Your task to perform on an android device: Go to privacy settings Image 0: 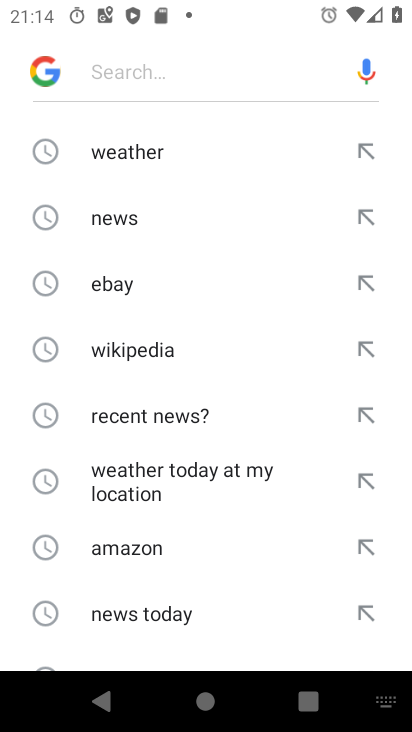
Step 0: press home button
Your task to perform on an android device: Go to privacy settings Image 1: 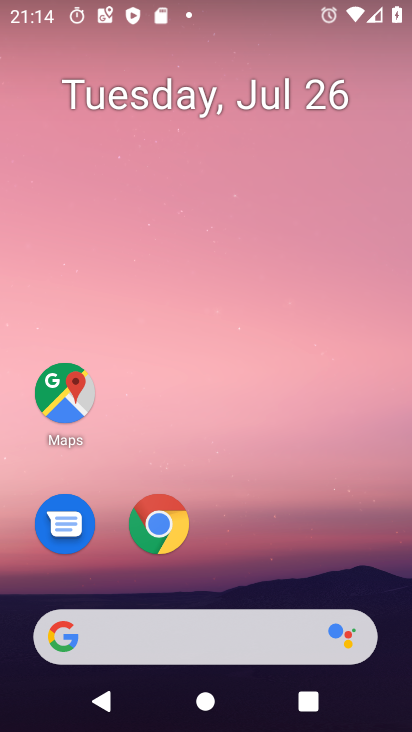
Step 1: drag from (253, 534) to (298, 16)
Your task to perform on an android device: Go to privacy settings Image 2: 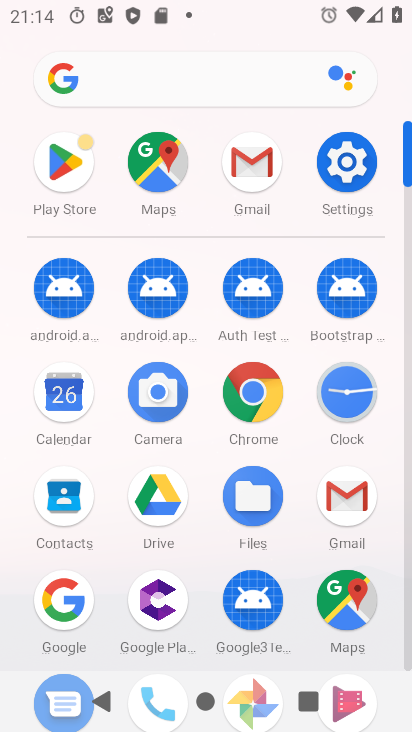
Step 2: click (350, 164)
Your task to perform on an android device: Go to privacy settings Image 3: 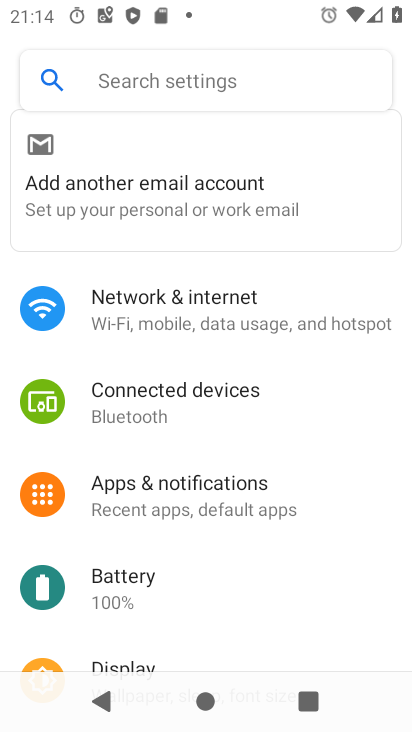
Step 3: drag from (199, 582) to (232, 113)
Your task to perform on an android device: Go to privacy settings Image 4: 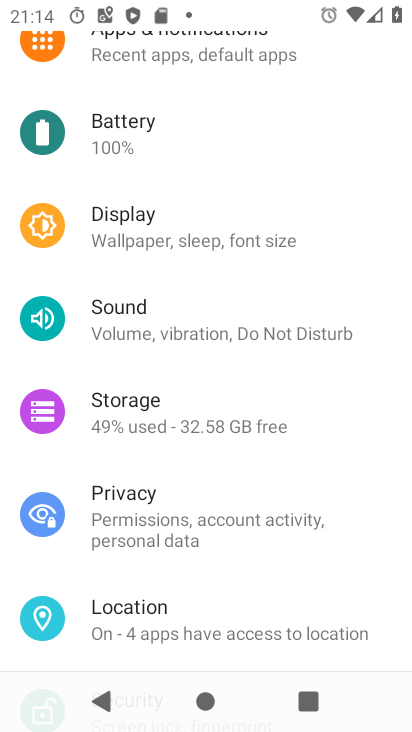
Step 4: click (199, 516)
Your task to perform on an android device: Go to privacy settings Image 5: 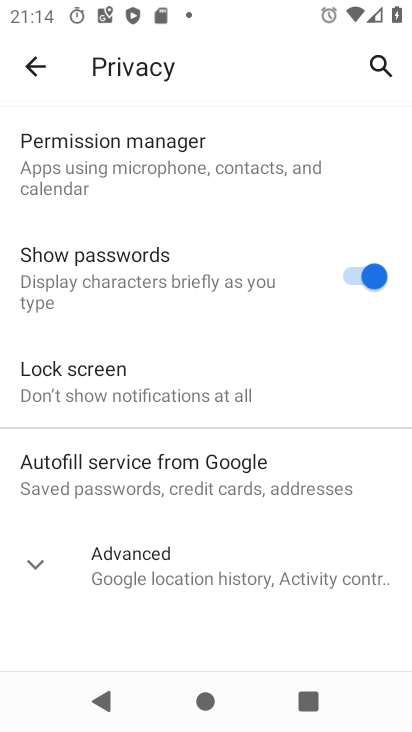
Step 5: task complete